Your task to perform on an android device: Open location settings Image 0: 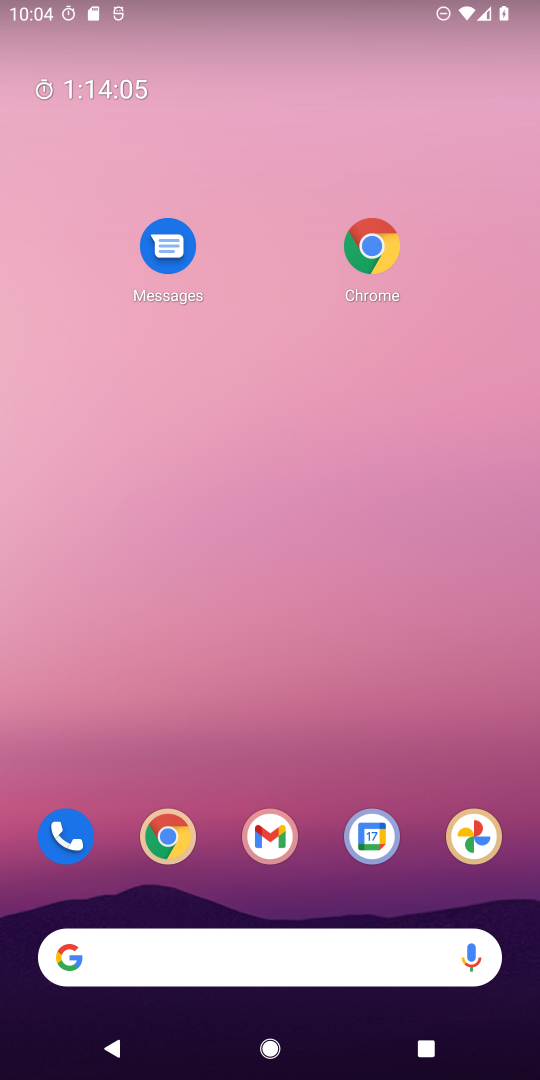
Step 0: drag from (229, 913) to (239, 335)
Your task to perform on an android device: Open location settings Image 1: 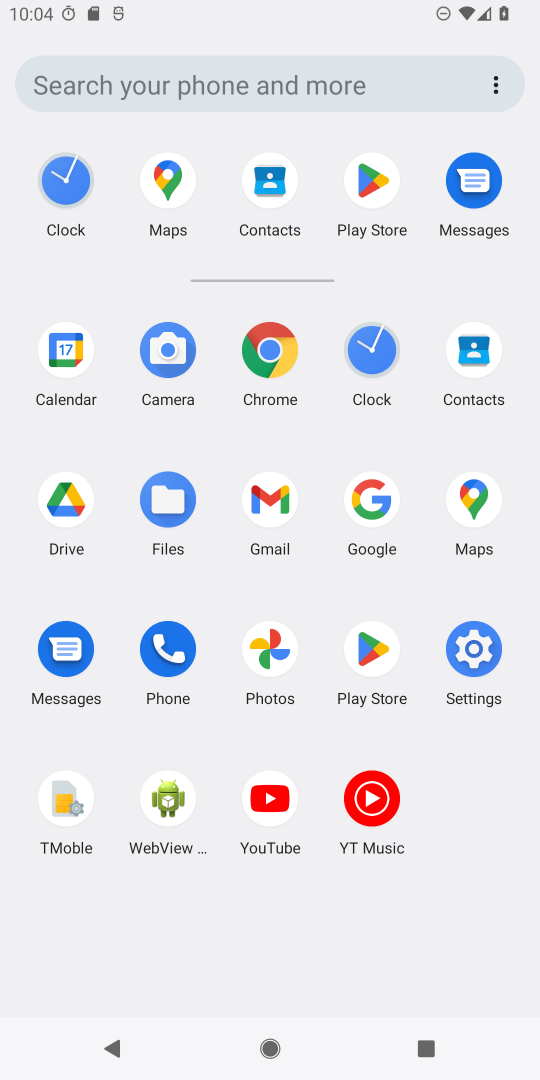
Step 1: click (499, 647)
Your task to perform on an android device: Open location settings Image 2: 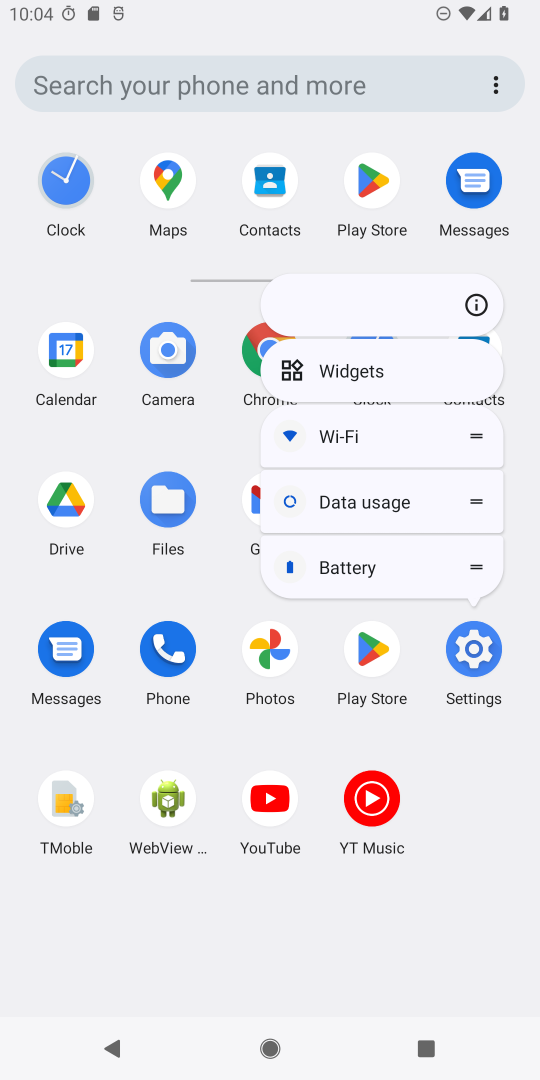
Step 2: click (473, 648)
Your task to perform on an android device: Open location settings Image 3: 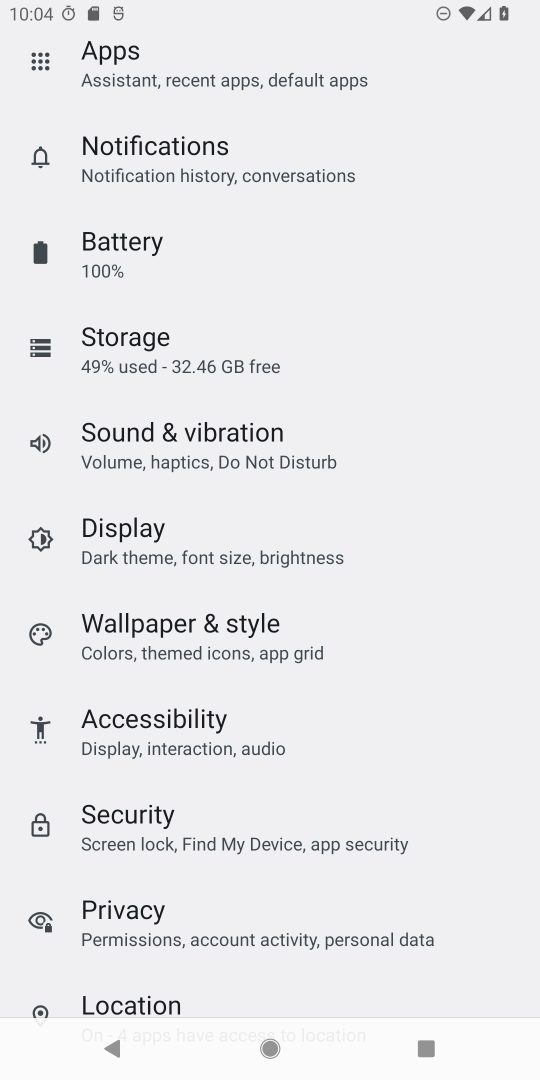
Step 3: drag from (232, 864) to (305, 396)
Your task to perform on an android device: Open location settings Image 4: 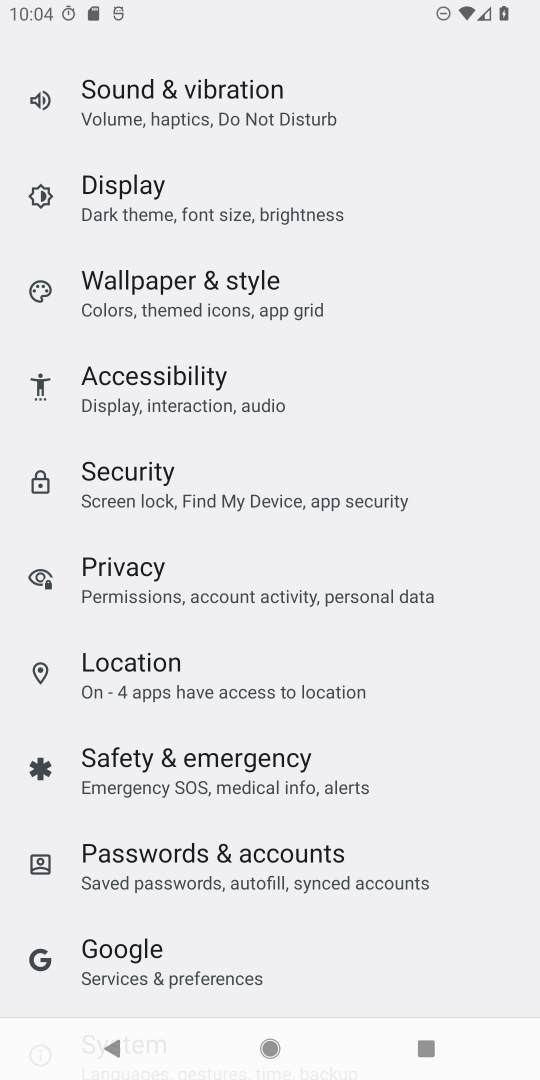
Step 4: click (168, 672)
Your task to perform on an android device: Open location settings Image 5: 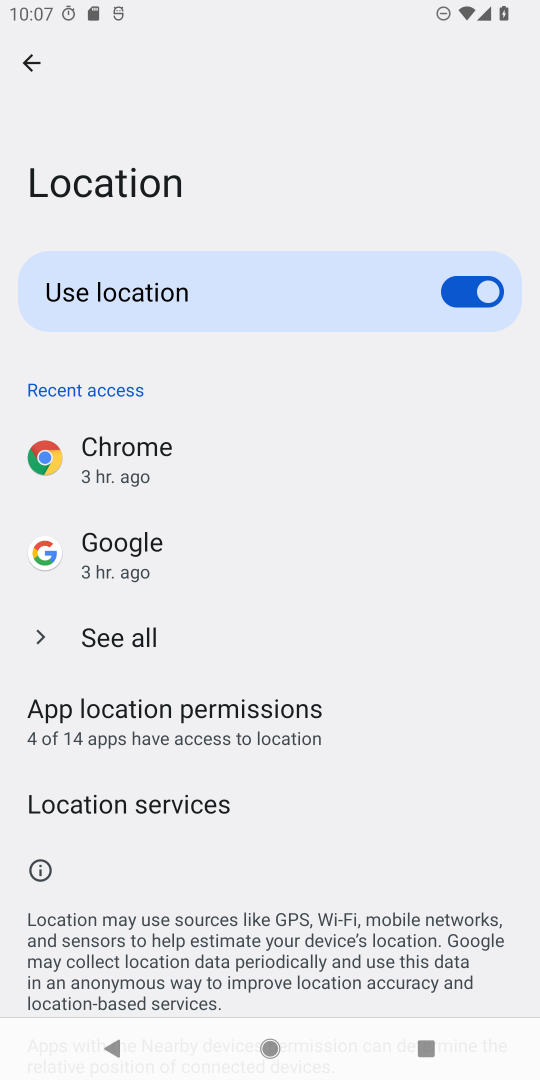
Step 5: task complete